Your task to perform on an android device: Turn off the flashlight Image 0: 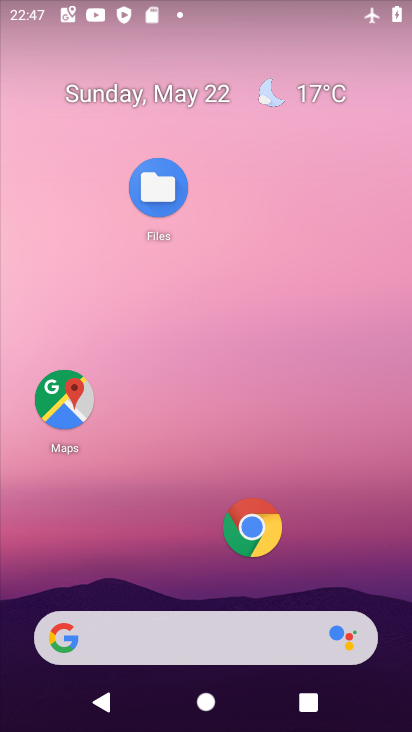
Step 0: drag from (161, 555) to (53, 73)
Your task to perform on an android device: Turn off the flashlight Image 1: 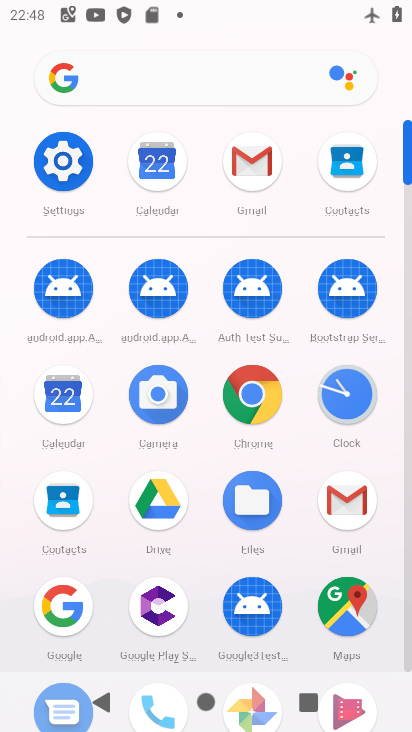
Step 1: click (64, 162)
Your task to perform on an android device: Turn off the flashlight Image 2: 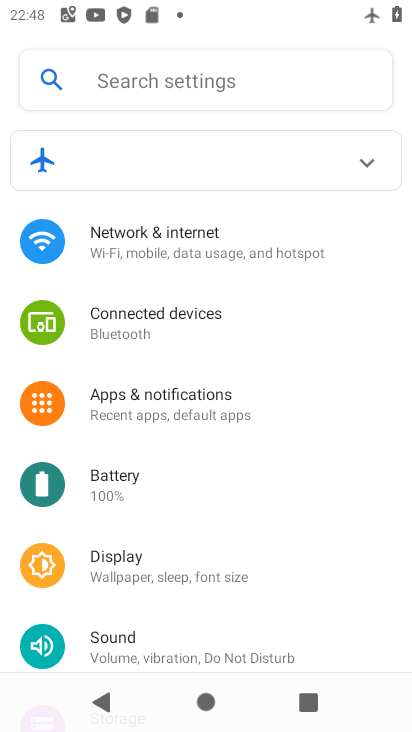
Step 2: click (132, 565)
Your task to perform on an android device: Turn off the flashlight Image 3: 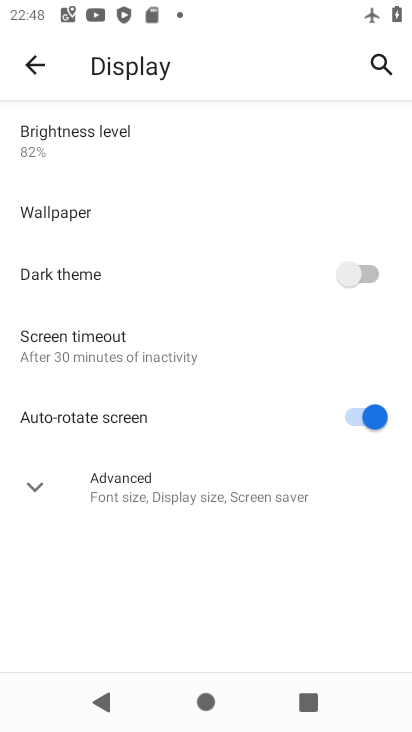
Step 3: task complete